Your task to perform on an android device: Go to settings Image 0: 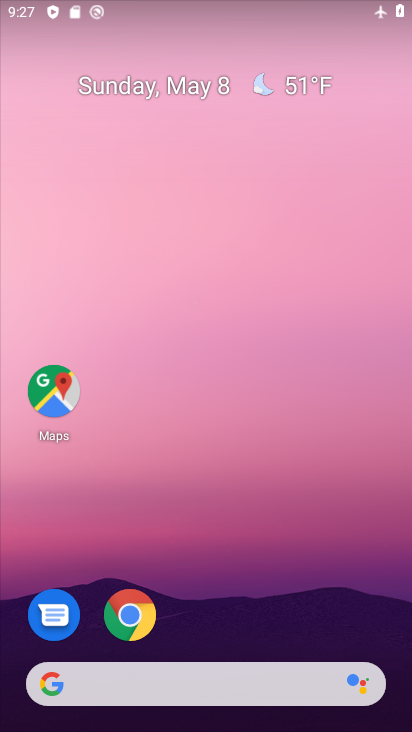
Step 0: drag from (216, 610) to (217, 172)
Your task to perform on an android device: Go to settings Image 1: 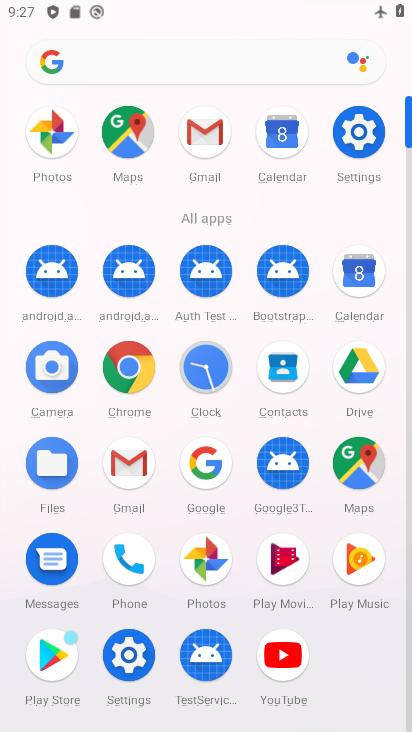
Step 1: click (363, 146)
Your task to perform on an android device: Go to settings Image 2: 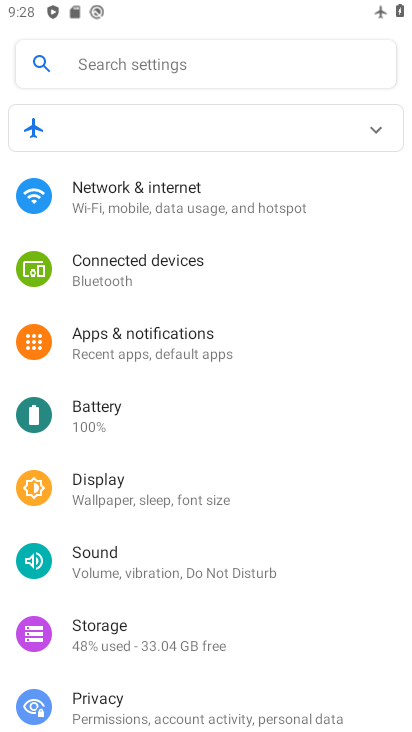
Step 2: task complete